Your task to perform on an android device: delete a single message in the gmail app Image 0: 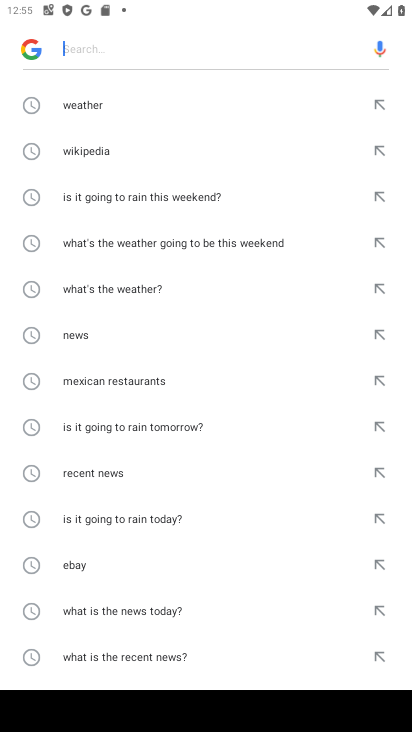
Step 0: press home button
Your task to perform on an android device: delete a single message in the gmail app Image 1: 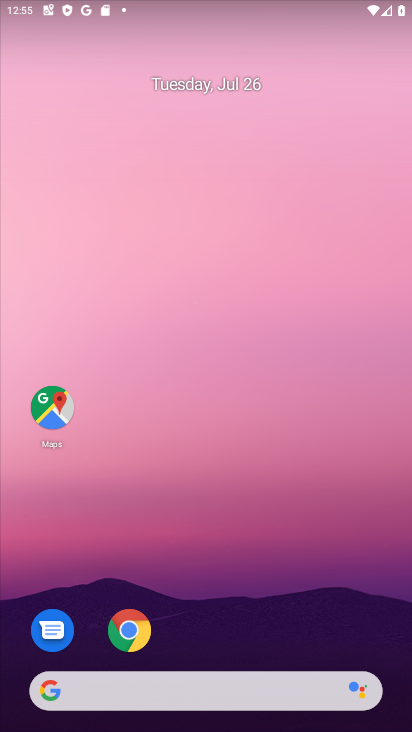
Step 1: drag from (260, 518) to (182, 42)
Your task to perform on an android device: delete a single message in the gmail app Image 2: 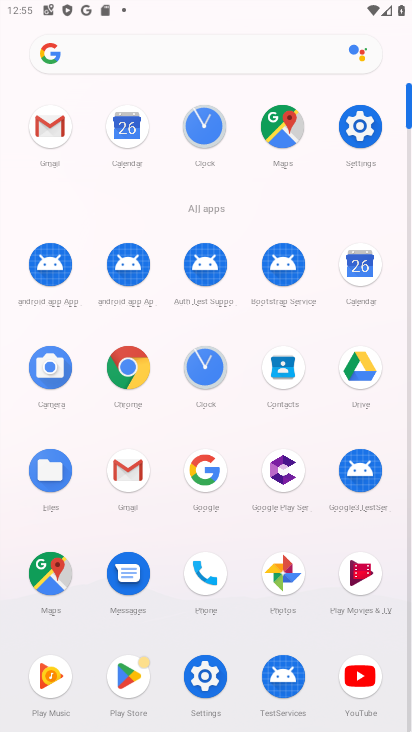
Step 2: click (132, 478)
Your task to perform on an android device: delete a single message in the gmail app Image 3: 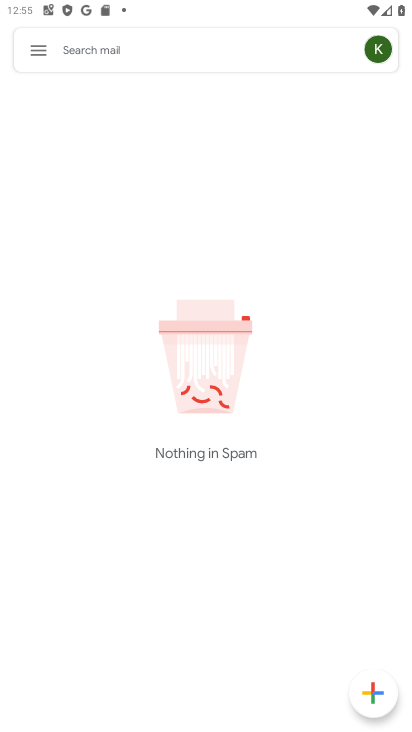
Step 3: click (42, 51)
Your task to perform on an android device: delete a single message in the gmail app Image 4: 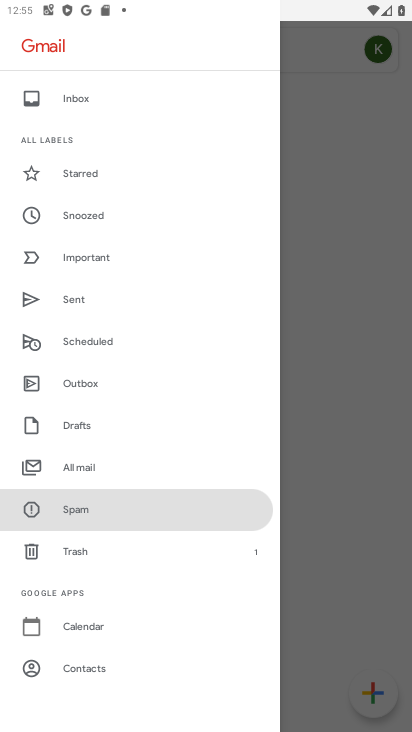
Step 4: click (84, 466)
Your task to perform on an android device: delete a single message in the gmail app Image 5: 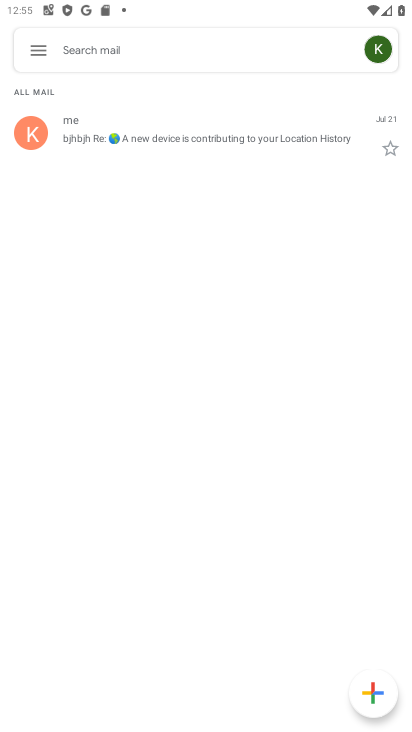
Step 5: click (233, 147)
Your task to perform on an android device: delete a single message in the gmail app Image 6: 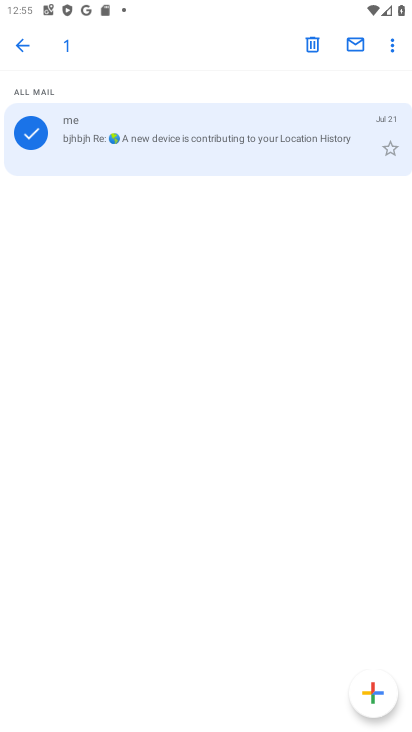
Step 6: click (319, 49)
Your task to perform on an android device: delete a single message in the gmail app Image 7: 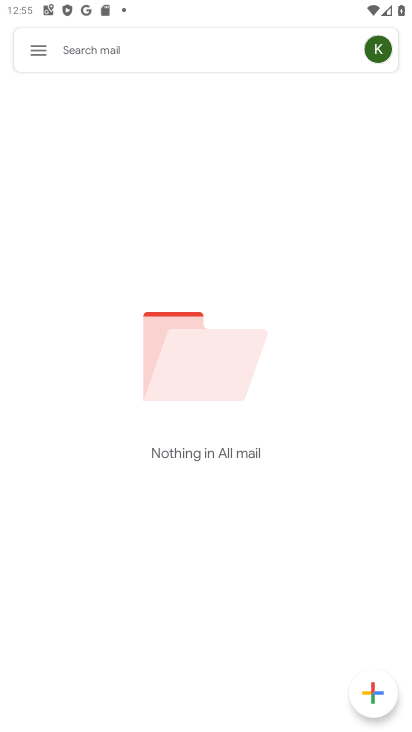
Step 7: task complete